Your task to perform on an android device: toggle priority inbox in the gmail app Image 0: 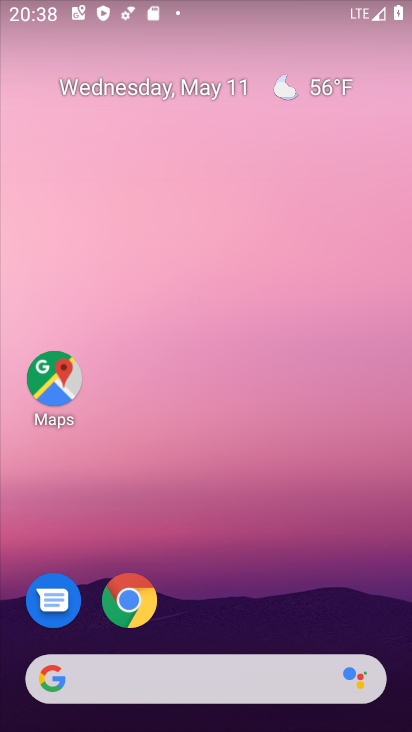
Step 0: drag from (242, 577) to (209, 31)
Your task to perform on an android device: toggle priority inbox in the gmail app Image 1: 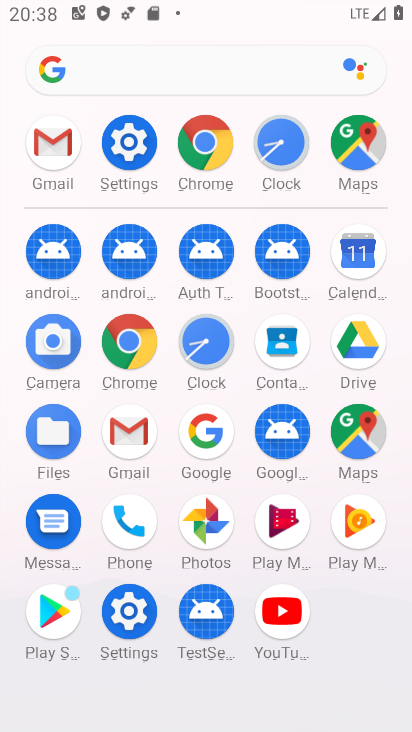
Step 1: click (51, 144)
Your task to perform on an android device: toggle priority inbox in the gmail app Image 2: 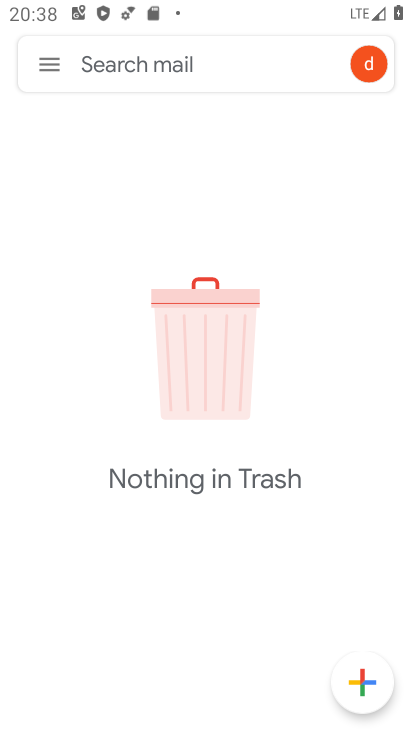
Step 2: click (48, 58)
Your task to perform on an android device: toggle priority inbox in the gmail app Image 3: 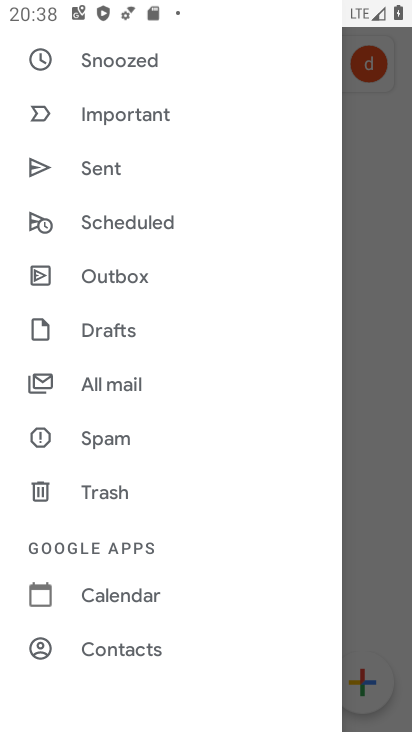
Step 3: drag from (124, 614) to (189, 448)
Your task to perform on an android device: toggle priority inbox in the gmail app Image 4: 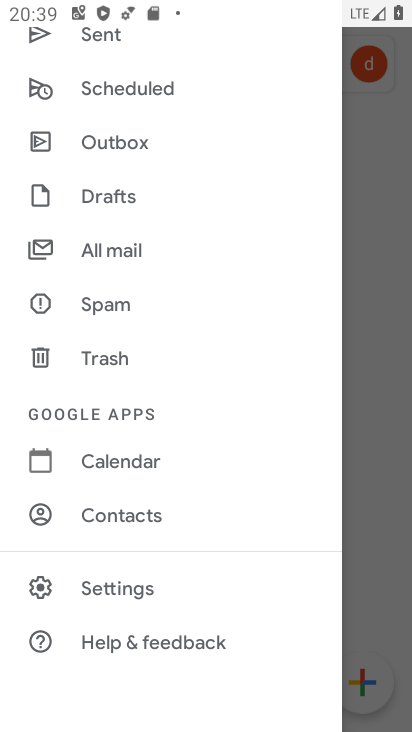
Step 4: click (135, 589)
Your task to perform on an android device: toggle priority inbox in the gmail app Image 5: 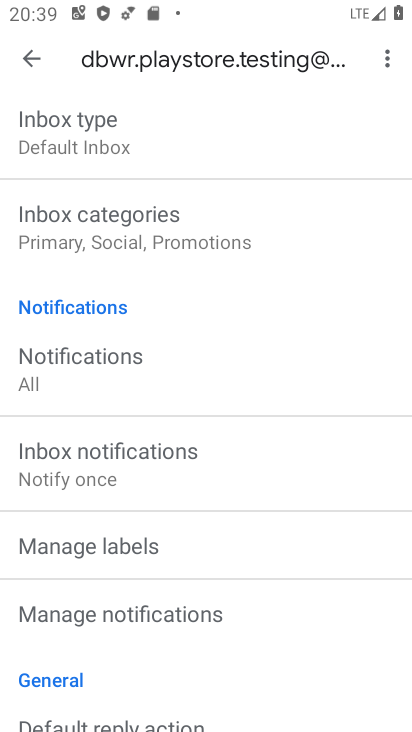
Step 5: click (94, 153)
Your task to perform on an android device: toggle priority inbox in the gmail app Image 6: 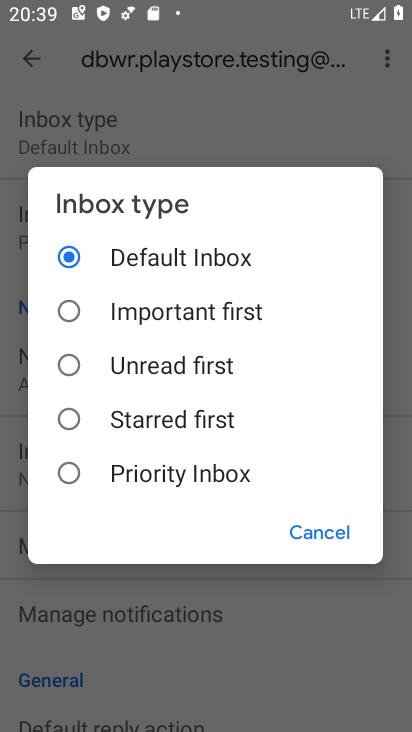
Step 6: click (67, 474)
Your task to perform on an android device: toggle priority inbox in the gmail app Image 7: 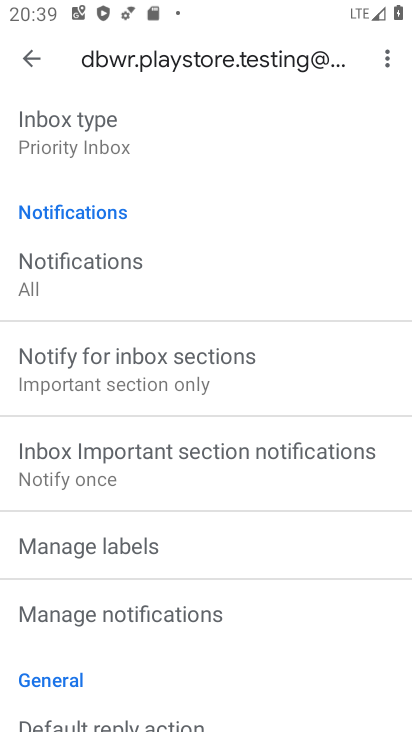
Step 7: task complete